Your task to perform on an android device: Go to accessibility settings Image 0: 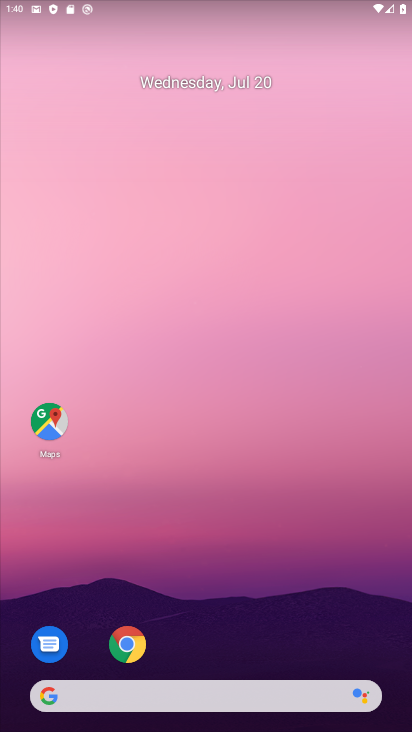
Step 0: drag from (374, 554) to (2, 440)
Your task to perform on an android device: Go to accessibility settings Image 1: 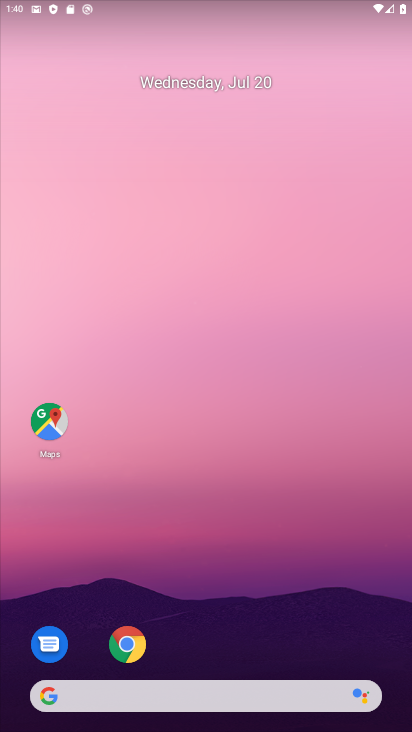
Step 1: drag from (168, 637) to (294, 173)
Your task to perform on an android device: Go to accessibility settings Image 2: 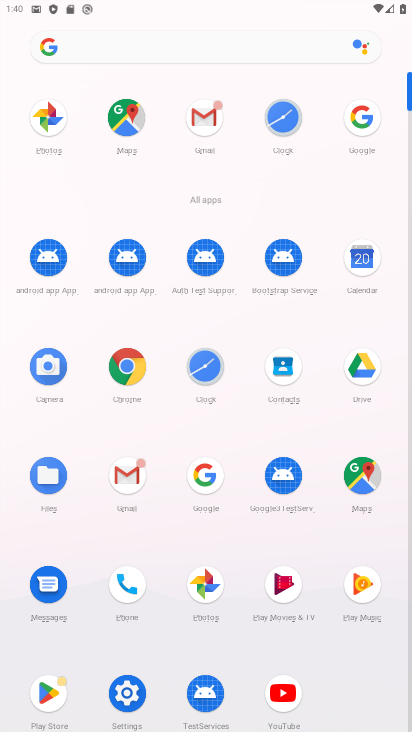
Step 2: click (127, 686)
Your task to perform on an android device: Go to accessibility settings Image 3: 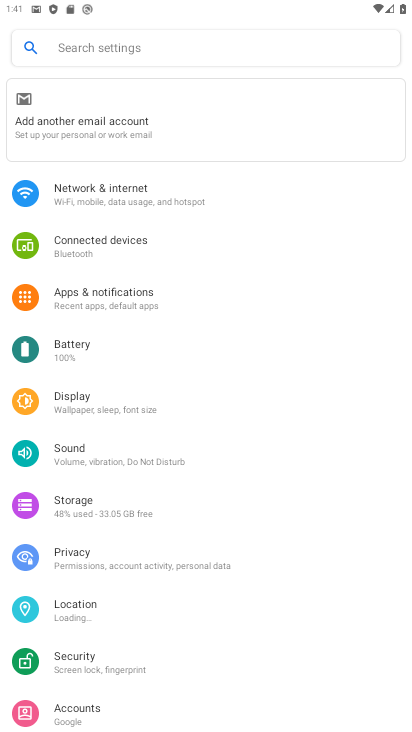
Step 3: drag from (192, 573) to (74, 151)
Your task to perform on an android device: Go to accessibility settings Image 4: 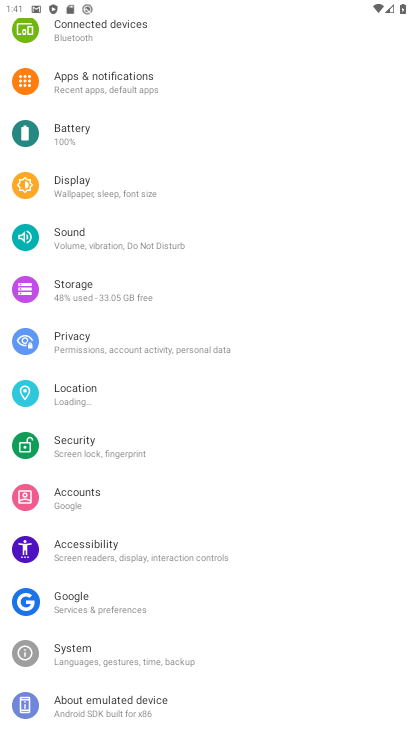
Step 4: click (104, 707)
Your task to perform on an android device: Go to accessibility settings Image 5: 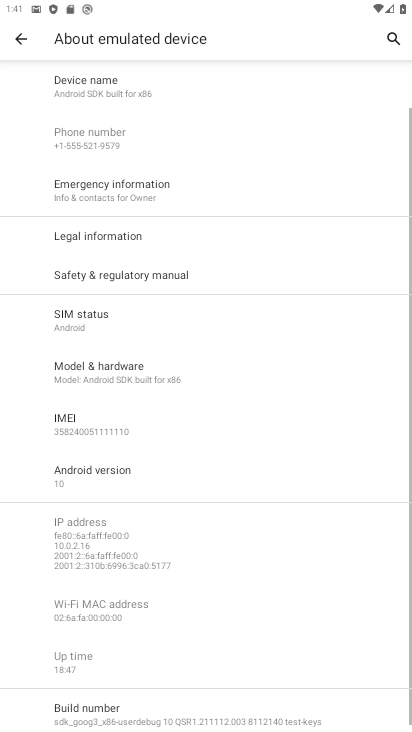
Step 5: click (7, 43)
Your task to perform on an android device: Go to accessibility settings Image 6: 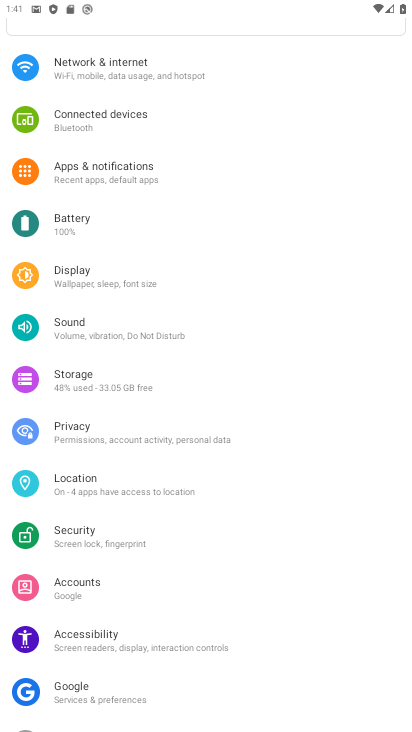
Step 6: click (90, 642)
Your task to perform on an android device: Go to accessibility settings Image 7: 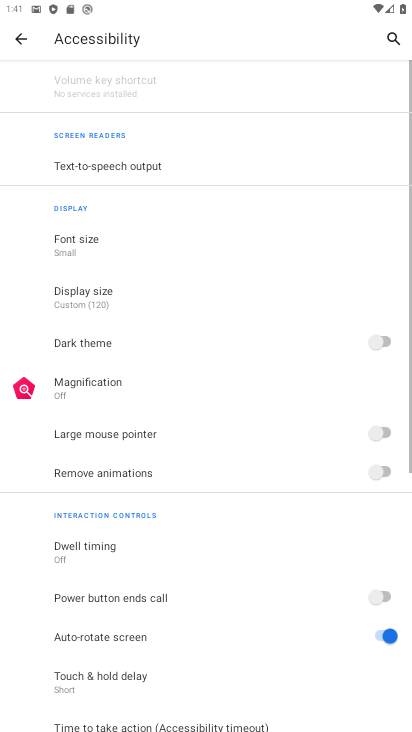
Step 7: task complete